Your task to perform on an android device: Open accessibility settings Image 0: 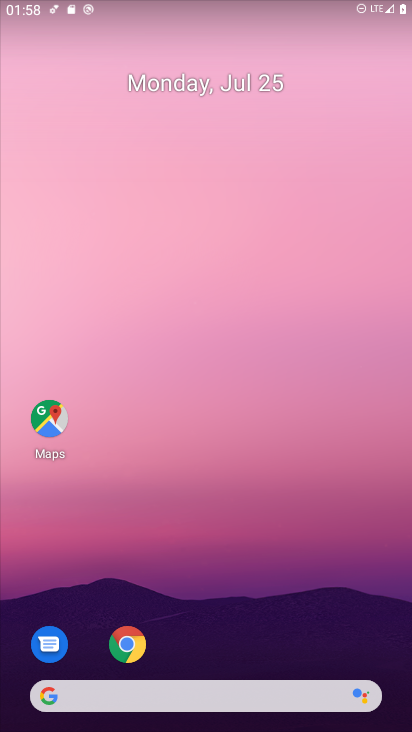
Step 0: drag from (239, 725) to (230, 129)
Your task to perform on an android device: Open accessibility settings Image 1: 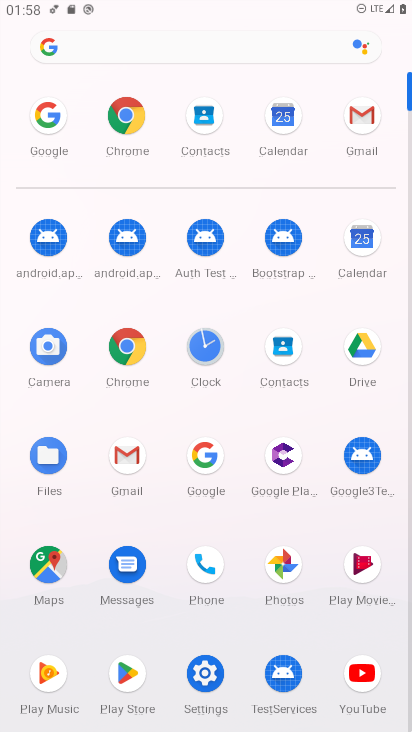
Step 1: click (200, 671)
Your task to perform on an android device: Open accessibility settings Image 2: 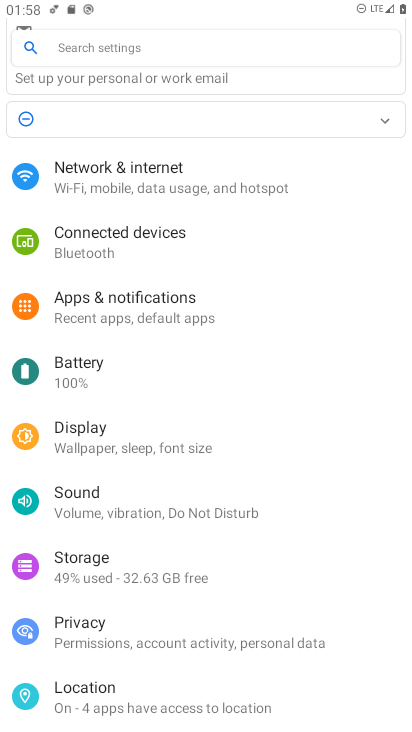
Step 2: drag from (103, 660) to (99, 308)
Your task to perform on an android device: Open accessibility settings Image 3: 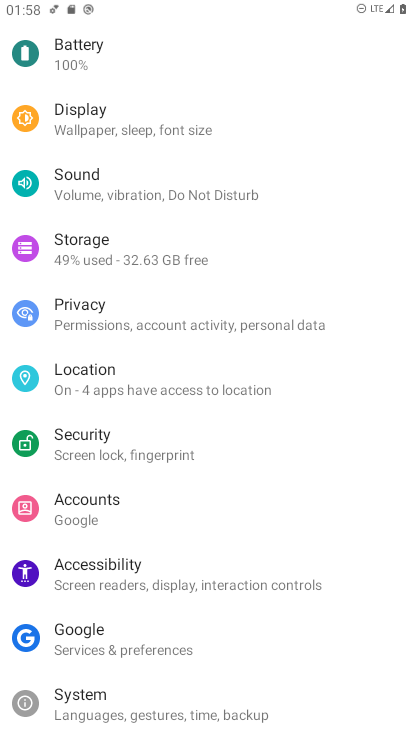
Step 3: click (99, 568)
Your task to perform on an android device: Open accessibility settings Image 4: 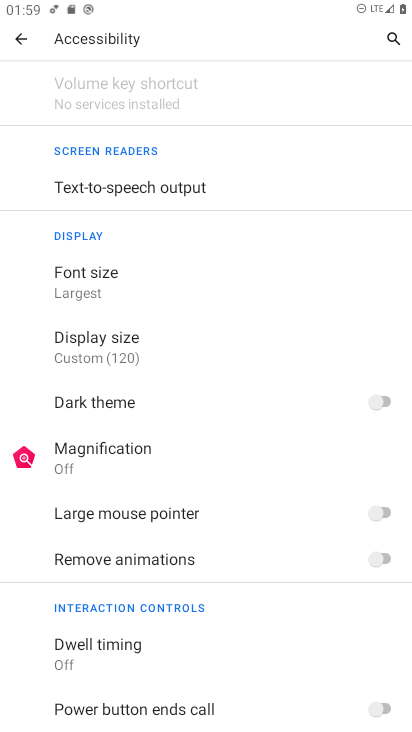
Step 4: task complete